Your task to perform on an android device: Show me popular games on the Play Store Image 0: 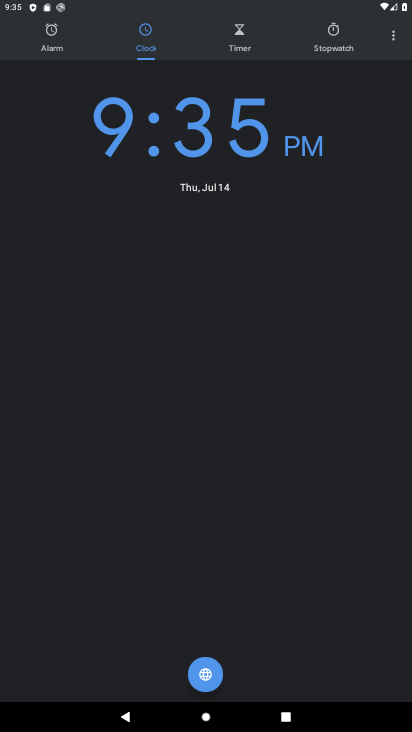
Step 0: press home button
Your task to perform on an android device: Show me popular games on the Play Store Image 1: 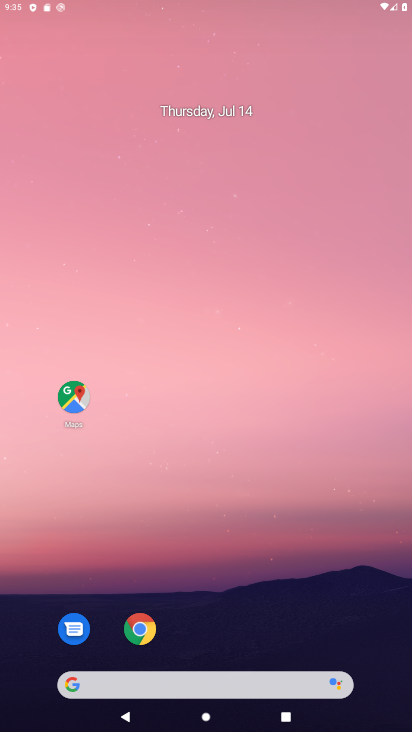
Step 1: drag from (230, 625) to (246, 87)
Your task to perform on an android device: Show me popular games on the Play Store Image 2: 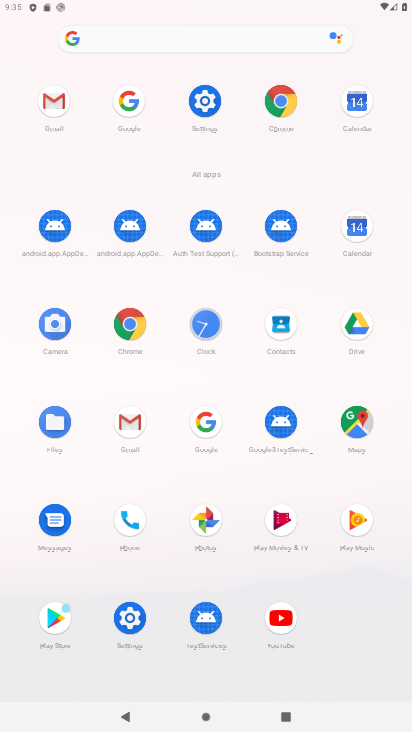
Step 2: click (51, 622)
Your task to perform on an android device: Show me popular games on the Play Store Image 3: 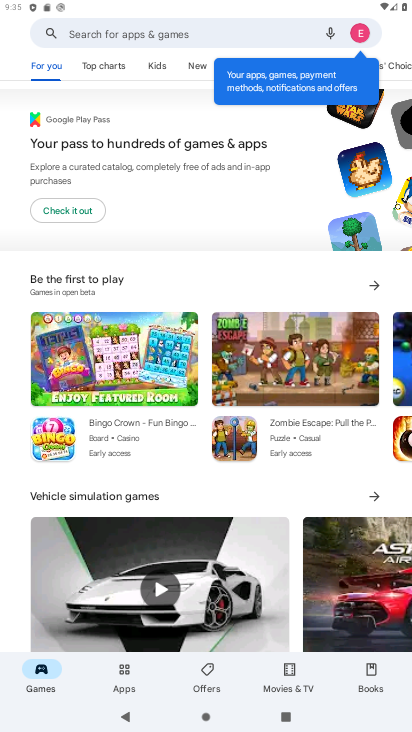
Step 3: task complete